Your task to perform on an android device: Open eBay Image 0: 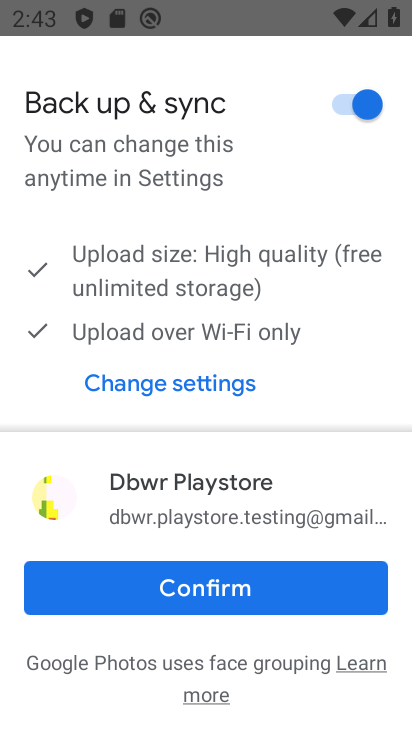
Step 0: press back button
Your task to perform on an android device: Open eBay Image 1: 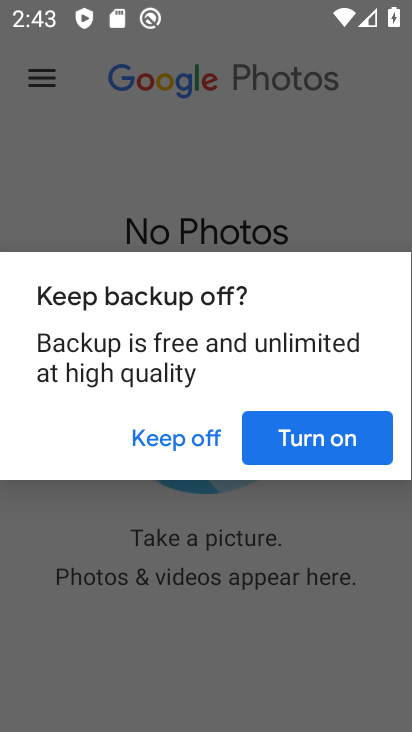
Step 1: press home button
Your task to perform on an android device: Open eBay Image 2: 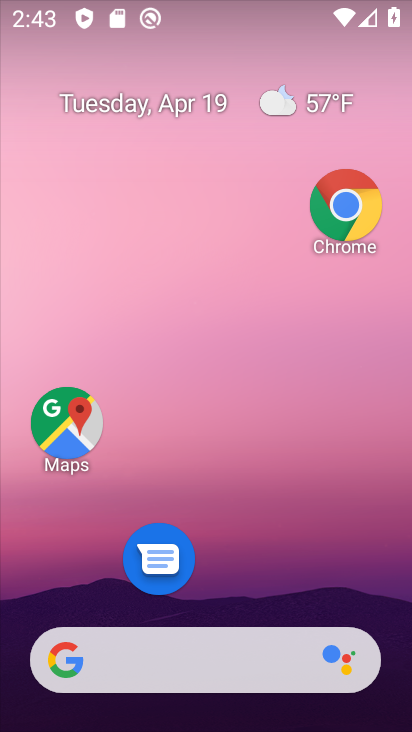
Step 2: click (346, 206)
Your task to perform on an android device: Open eBay Image 3: 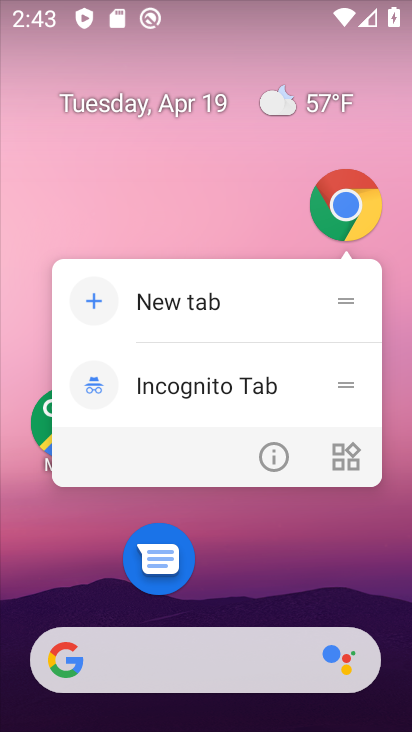
Step 3: click (153, 472)
Your task to perform on an android device: Open eBay Image 4: 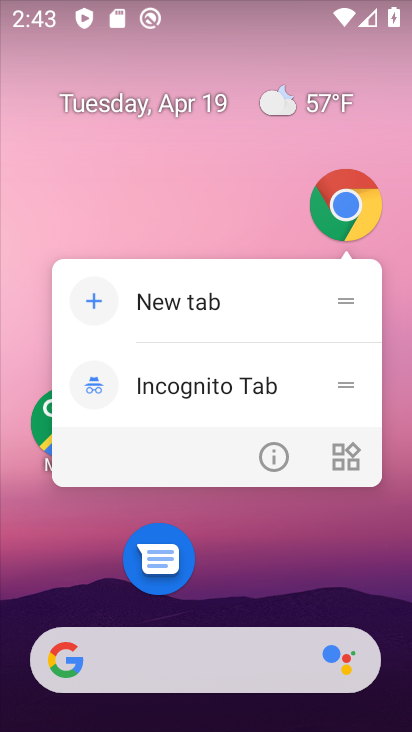
Step 4: click (283, 461)
Your task to perform on an android device: Open eBay Image 5: 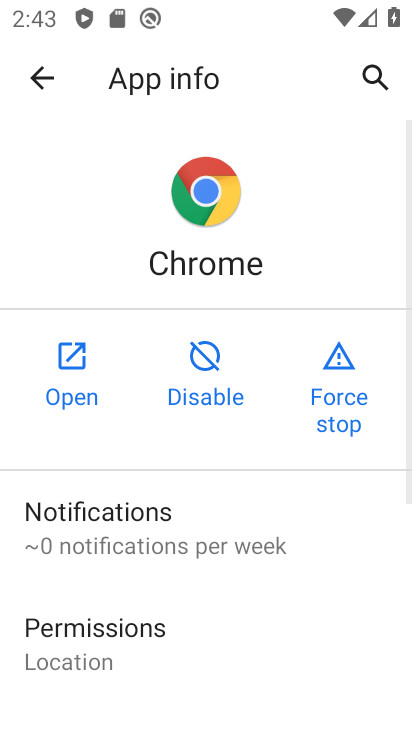
Step 5: click (66, 364)
Your task to perform on an android device: Open eBay Image 6: 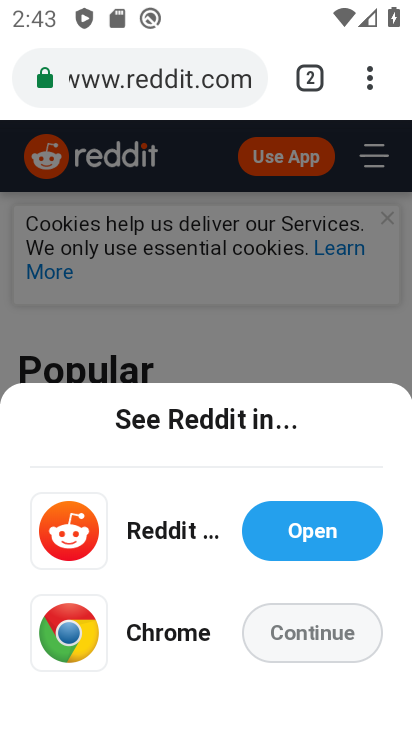
Step 6: click (154, 64)
Your task to perform on an android device: Open eBay Image 7: 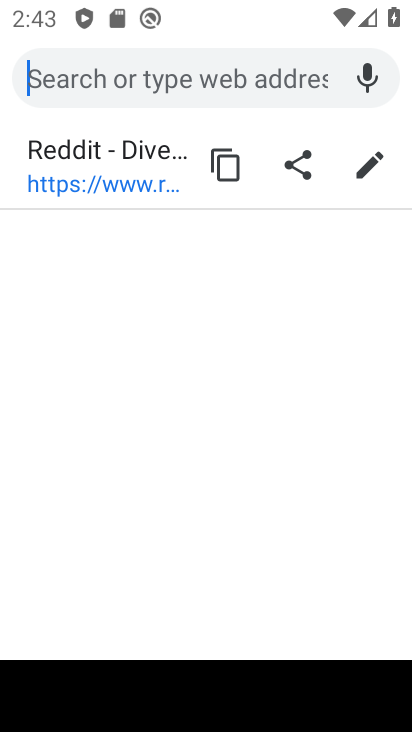
Step 7: type "eBay"
Your task to perform on an android device: Open eBay Image 8: 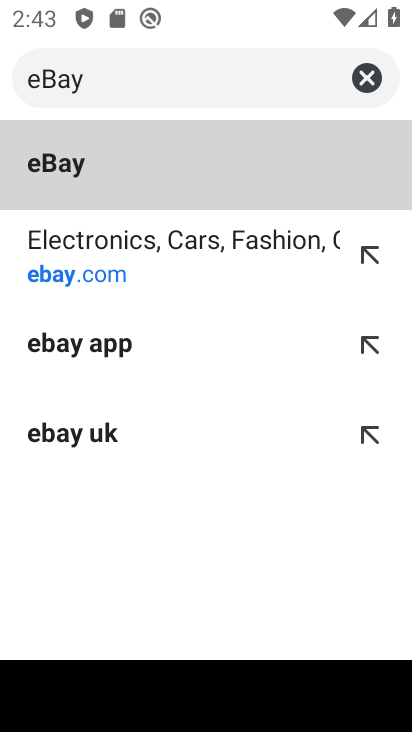
Step 8: click (265, 154)
Your task to perform on an android device: Open eBay Image 9: 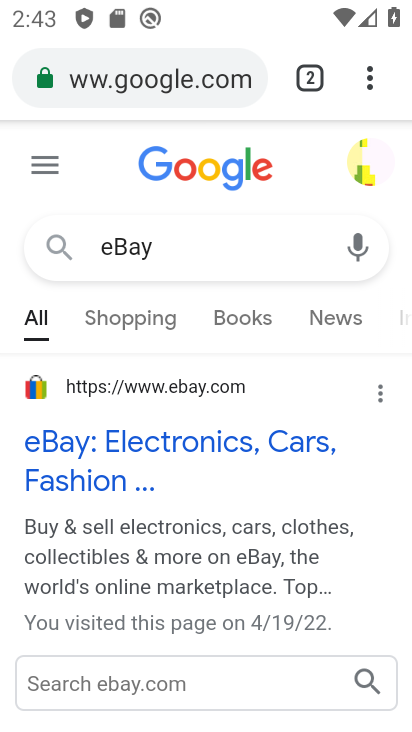
Step 9: task complete